Your task to perform on an android device: Go to accessibility settings Image 0: 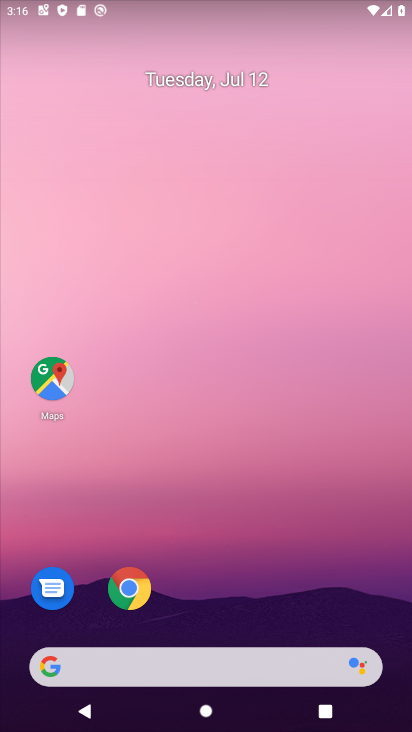
Step 0: drag from (267, 601) to (356, 23)
Your task to perform on an android device: Go to accessibility settings Image 1: 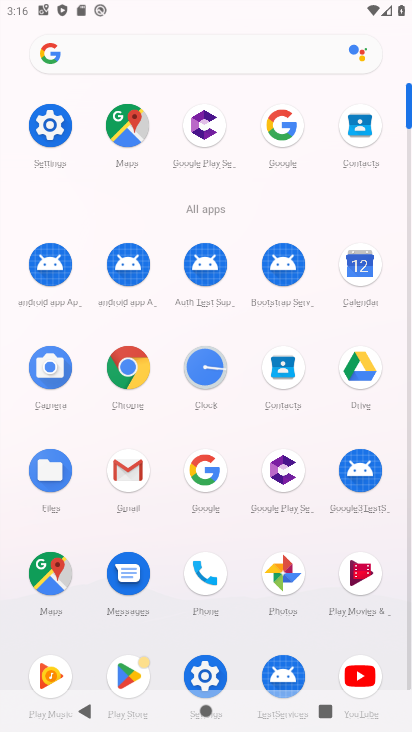
Step 1: click (57, 137)
Your task to perform on an android device: Go to accessibility settings Image 2: 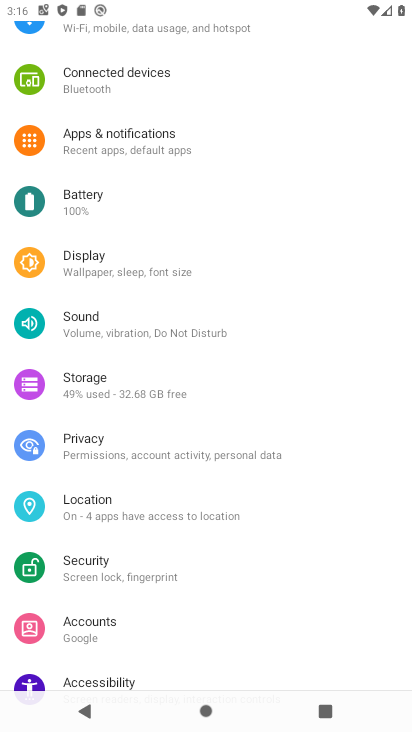
Step 2: click (146, 674)
Your task to perform on an android device: Go to accessibility settings Image 3: 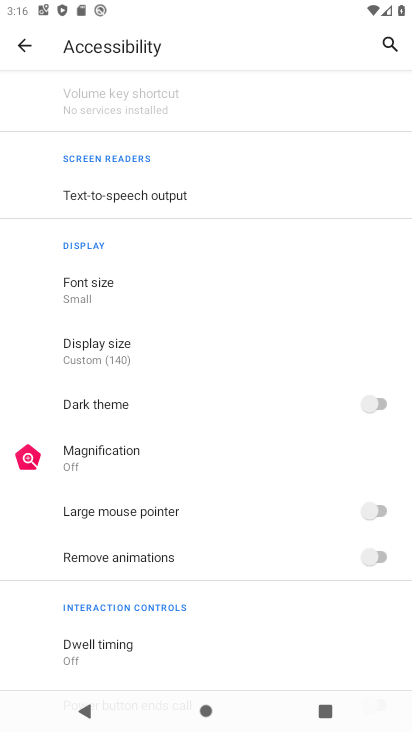
Step 3: task complete